Your task to perform on an android device: turn notification dots on Image 0: 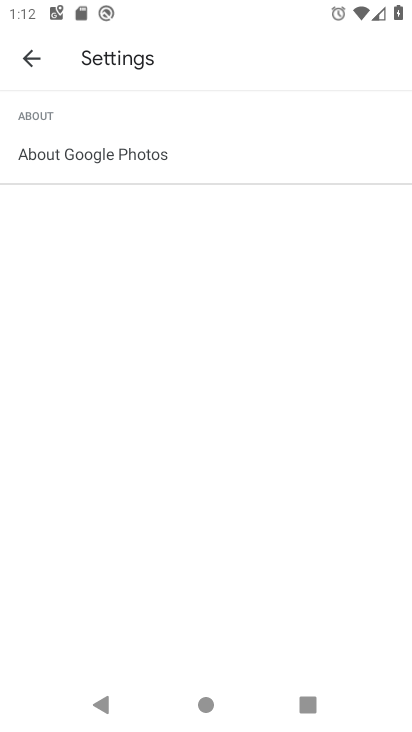
Step 0: press home button
Your task to perform on an android device: turn notification dots on Image 1: 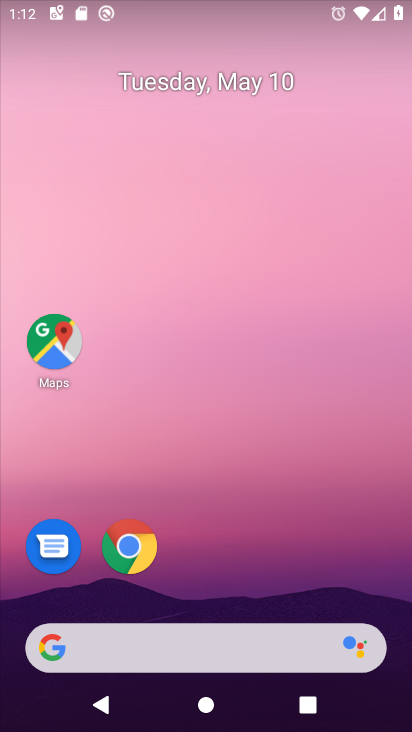
Step 1: drag from (339, 571) to (327, 11)
Your task to perform on an android device: turn notification dots on Image 2: 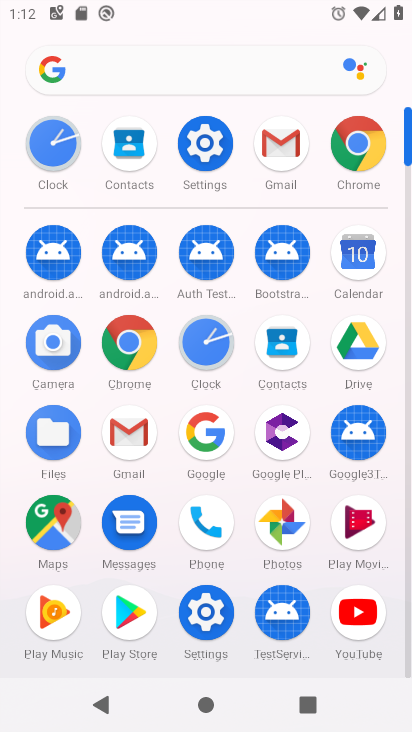
Step 2: click (211, 617)
Your task to perform on an android device: turn notification dots on Image 3: 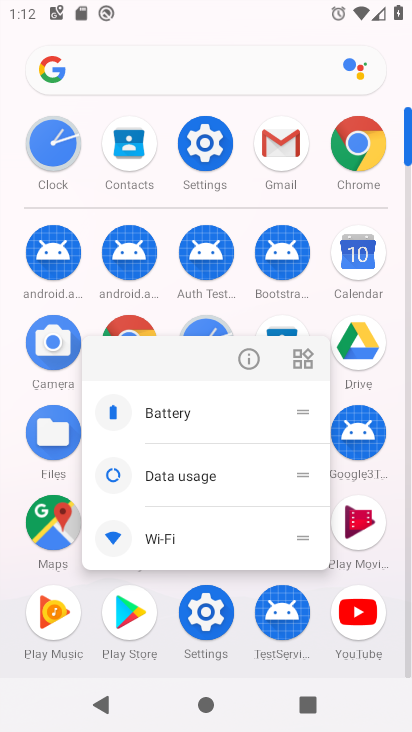
Step 3: click (216, 615)
Your task to perform on an android device: turn notification dots on Image 4: 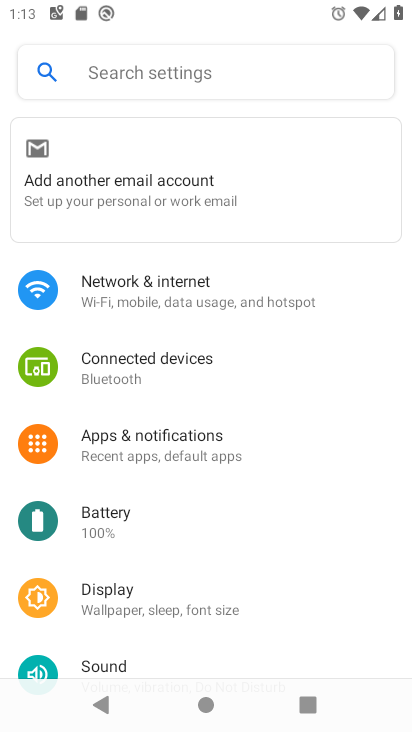
Step 4: click (163, 428)
Your task to perform on an android device: turn notification dots on Image 5: 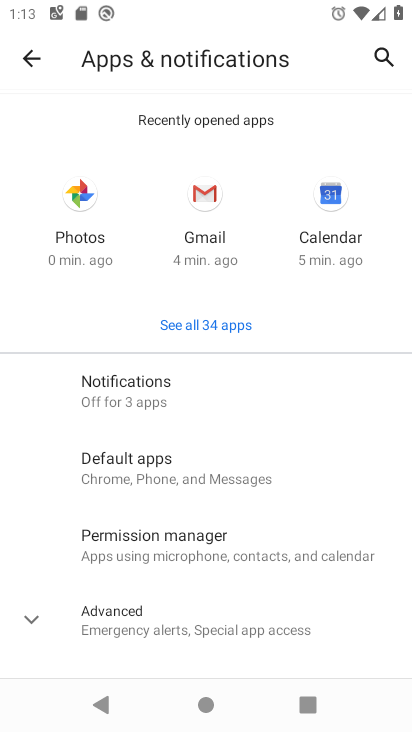
Step 5: click (163, 388)
Your task to perform on an android device: turn notification dots on Image 6: 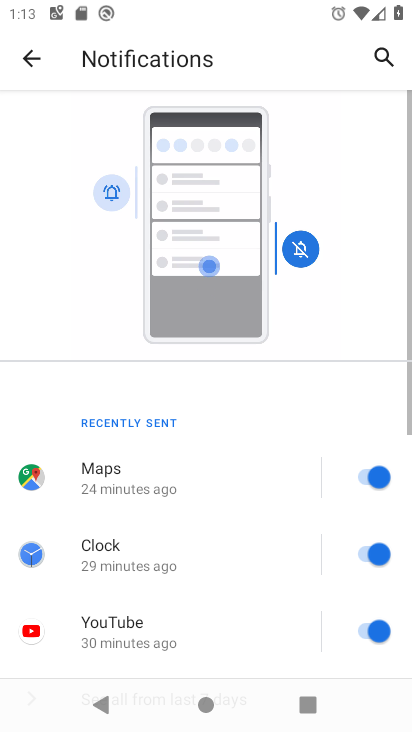
Step 6: drag from (195, 554) to (170, 255)
Your task to perform on an android device: turn notification dots on Image 7: 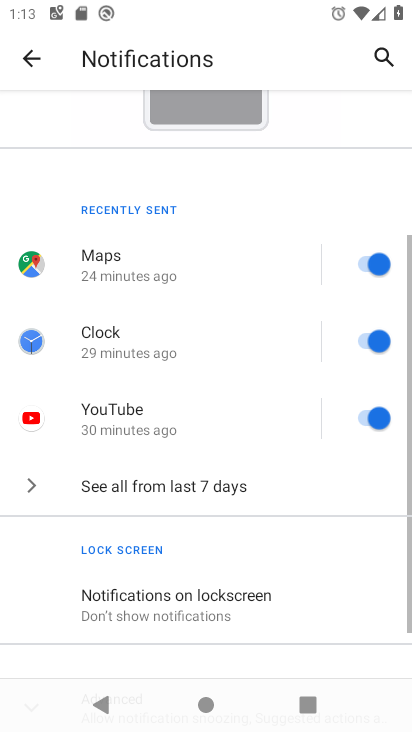
Step 7: drag from (199, 507) to (197, 262)
Your task to perform on an android device: turn notification dots on Image 8: 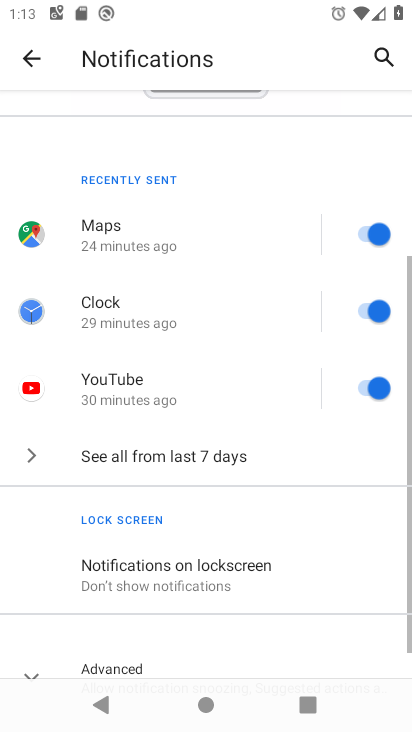
Step 8: click (201, 639)
Your task to perform on an android device: turn notification dots on Image 9: 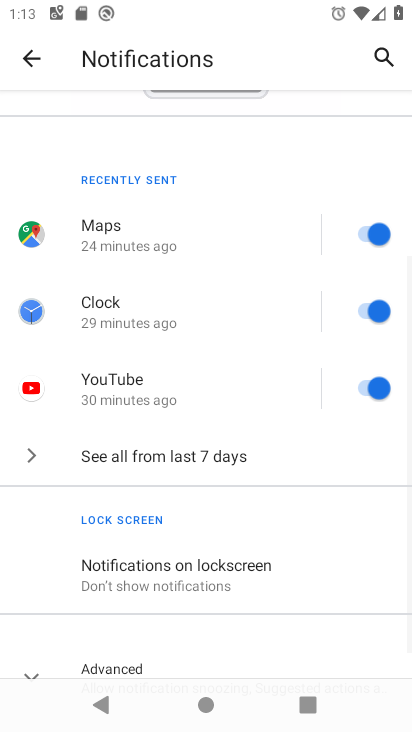
Step 9: drag from (236, 636) to (257, 322)
Your task to perform on an android device: turn notification dots on Image 10: 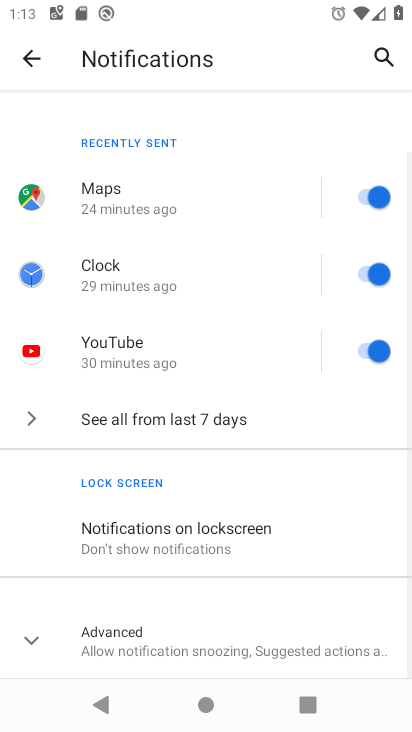
Step 10: drag from (262, 608) to (220, 352)
Your task to perform on an android device: turn notification dots on Image 11: 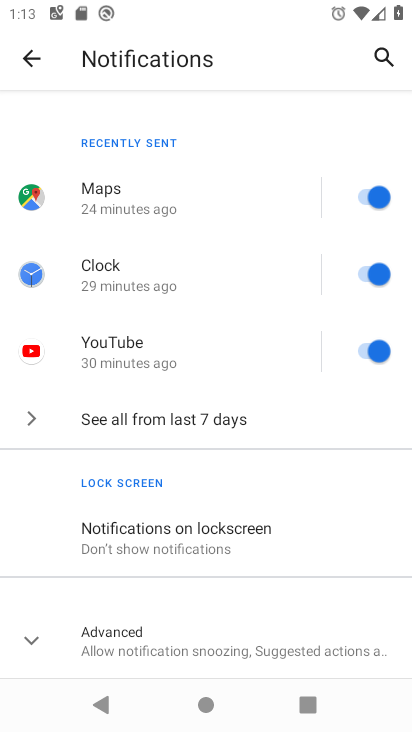
Step 11: click (230, 644)
Your task to perform on an android device: turn notification dots on Image 12: 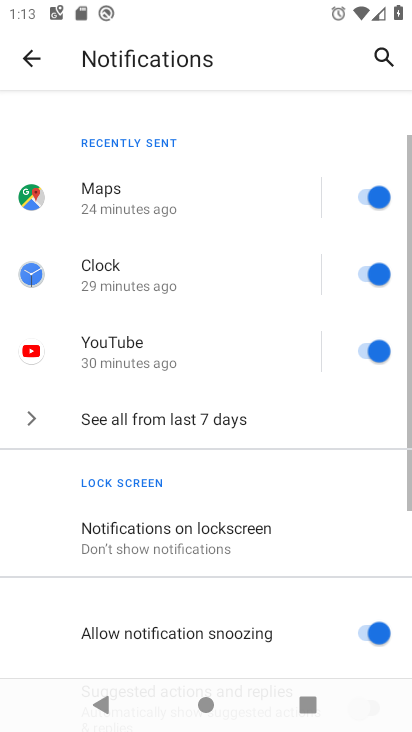
Step 12: task complete